Your task to perform on an android device: open app "Truecaller" (install if not already installed) Image 0: 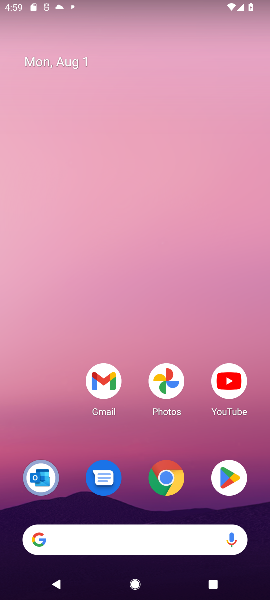
Step 0: click (219, 487)
Your task to perform on an android device: open app "Truecaller" (install if not already installed) Image 1: 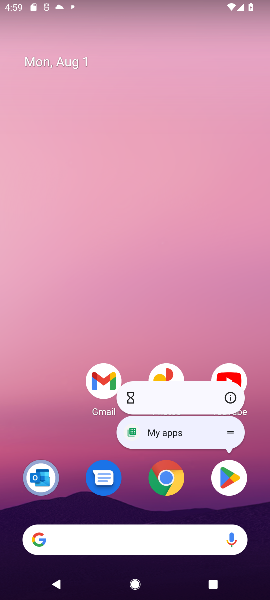
Step 1: click (215, 483)
Your task to perform on an android device: open app "Truecaller" (install if not already installed) Image 2: 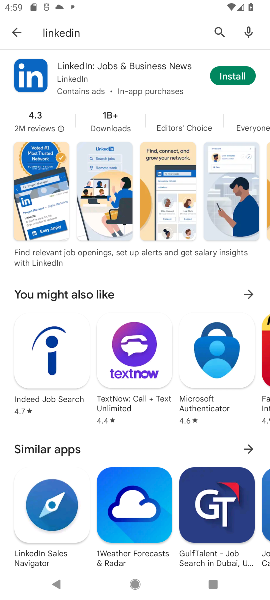
Step 2: click (211, 31)
Your task to perform on an android device: open app "Truecaller" (install if not already installed) Image 3: 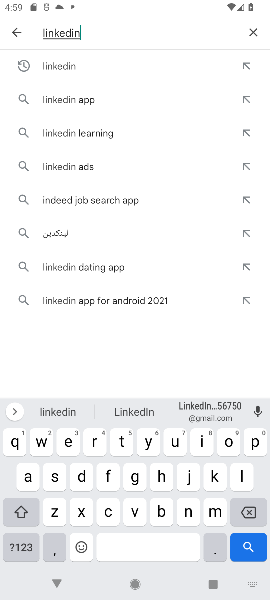
Step 3: click (251, 27)
Your task to perform on an android device: open app "Truecaller" (install if not already installed) Image 4: 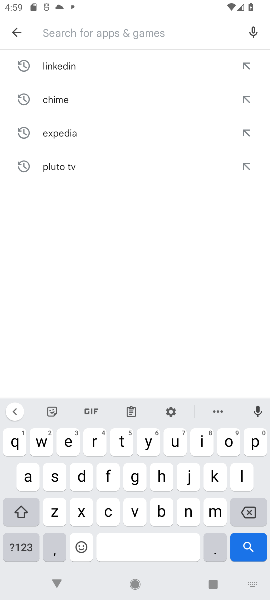
Step 4: click (118, 439)
Your task to perform on an android device: open app "Truecaller" (install if not already installed) Image 5: 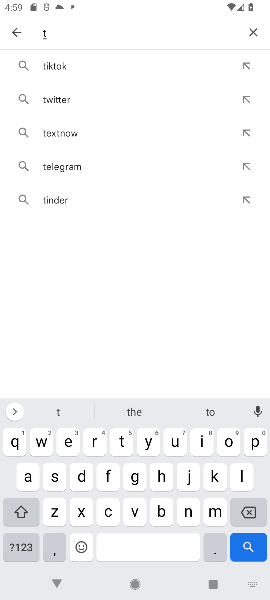
Step 5: click (91, 440)
Your task to perform on an android device: open app "Truecaller" (install if not already installed) Image 6: 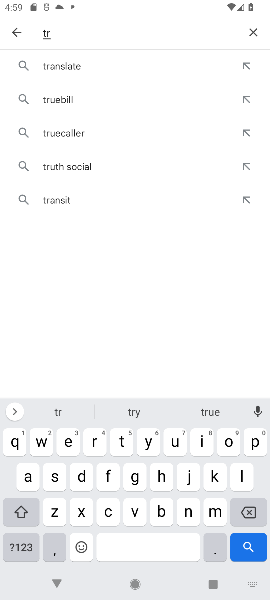
Step 6: click (178, 439)
Your task to perform on an android device: open app "Truecaller" (install if not already installed) Image 7: 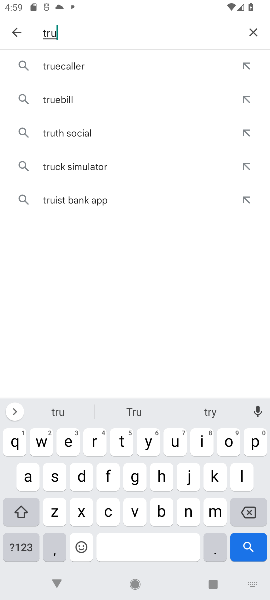
Step 7: click (64, 440)
Your task to perform on an android device: open app "Truecaller" (install if not already installed) Image 8: 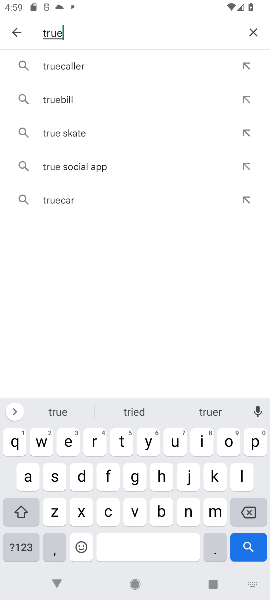
Step 8: click (104, 511)
Your task to perform on an android device: open app "Truecaller" (install if not already installed) Image 9: 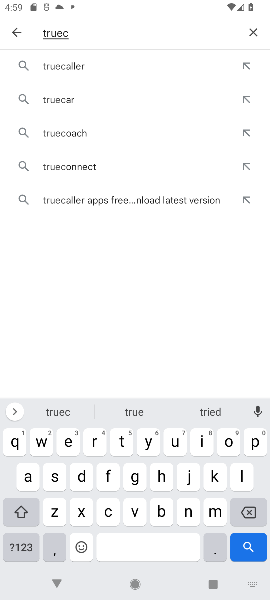
Step 9: click (59, 66)
Your task to perform on an android device: open app "Truecaller" (install if not already installed) Image 10: 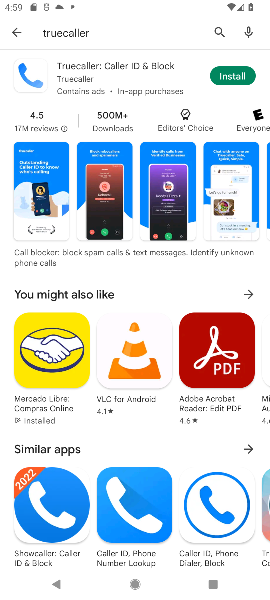
Step 10: click (219, 77)
Your task to perform on an android device: open app "Truecaller" (install if not already installed) Image 11: 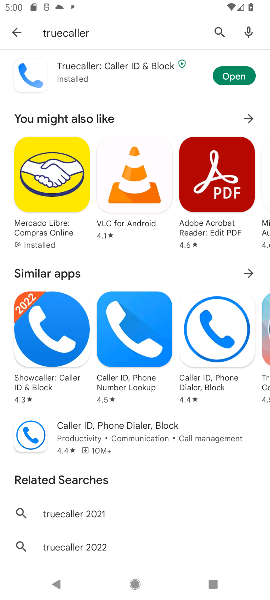
Step 11: click (219, 77)
Your task to perform on an android device: open app "Truecaller" (install if not already installed) Image 12: 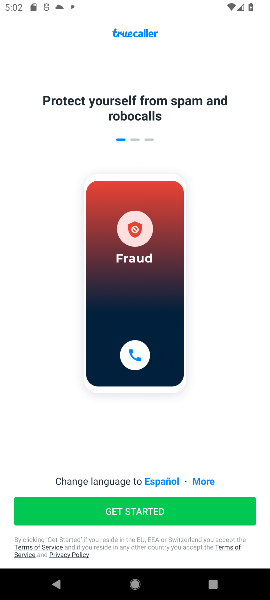
Step 12: task complete